Your task to perform on an android device: Go to Yahoo.com Image 0: 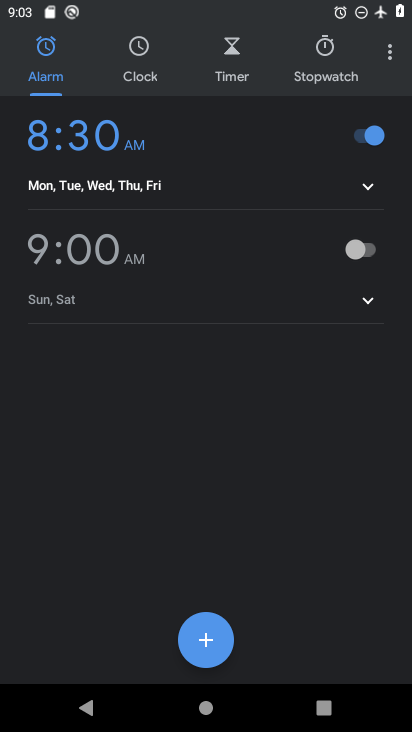
Step 0: click (392, 574)
Your task to perform on an android device: Go to Yahoo.com Image 1: 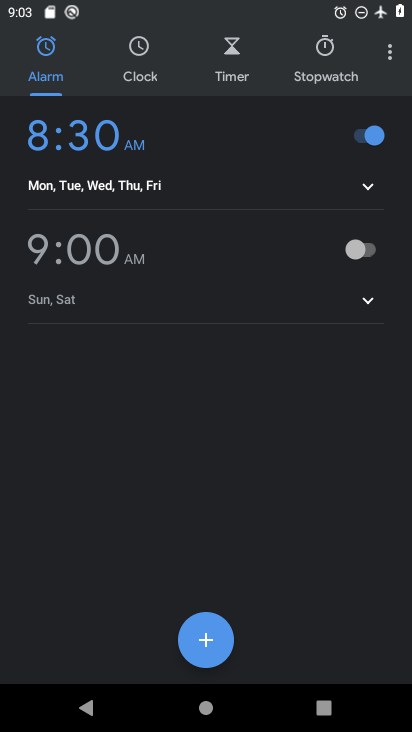
Step 1: press home button
Your task to perform on an android device: Go to Yahoo.com Image 2: 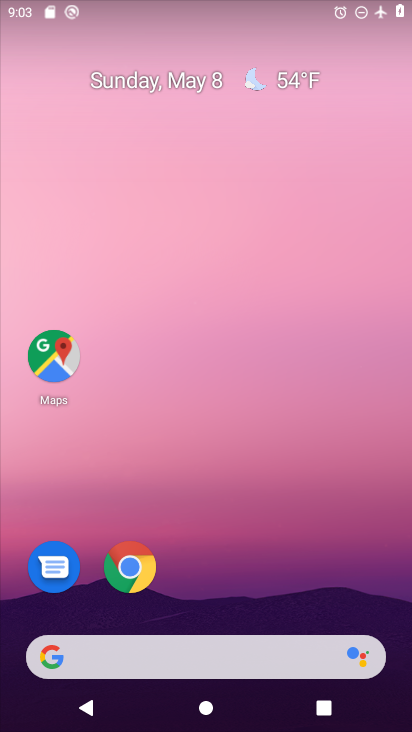
Step 2: drag from (269, 528) to (242, 148)
Your task to perform on an android device: Go to Yahoo.com Image 3: 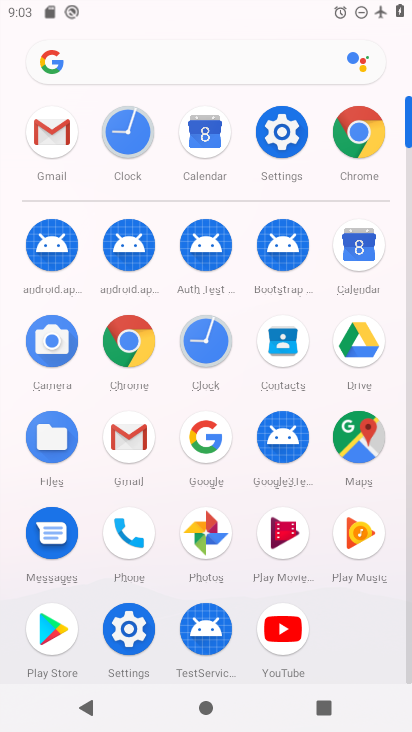
Step 3: click (382, 132)
Your task to perform on an android device: Go to Yahoo.com Image 4: 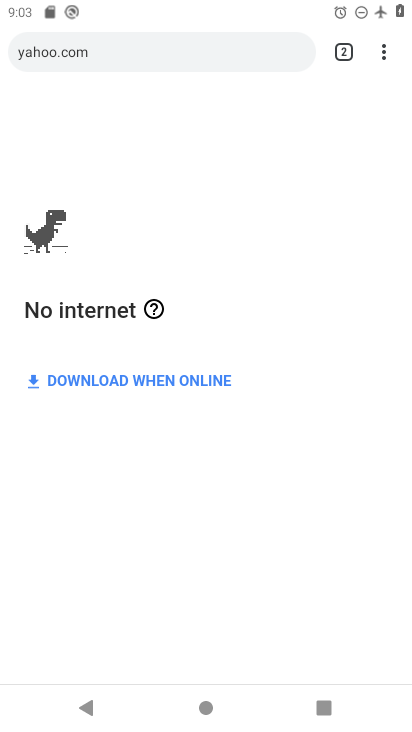
Step 4: task complete